Your task to perform on an android device: Open settings Image 0: 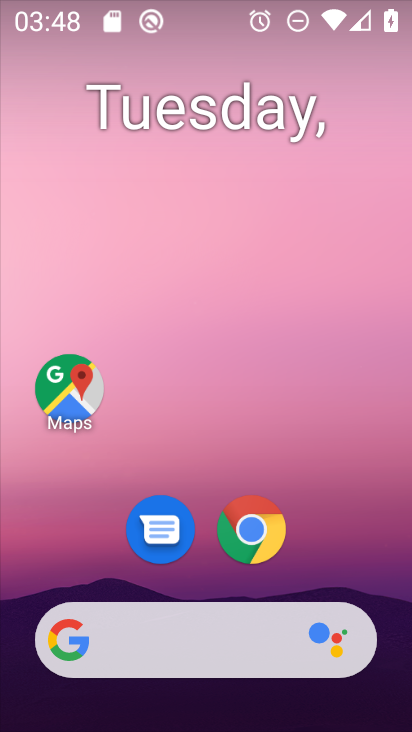
Step 0: drag from (265, 420) to (240, 103)
Your task to perform on an android device: Open settings Image 1: 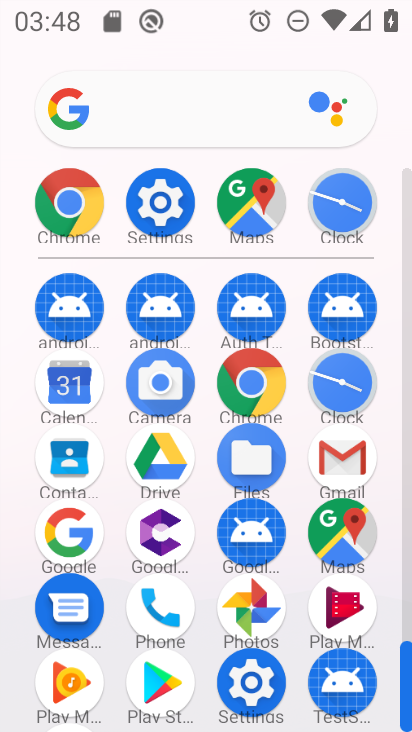
Step 1: click (164, 198)
Your task to perform on an android device: Open settings Image 2: 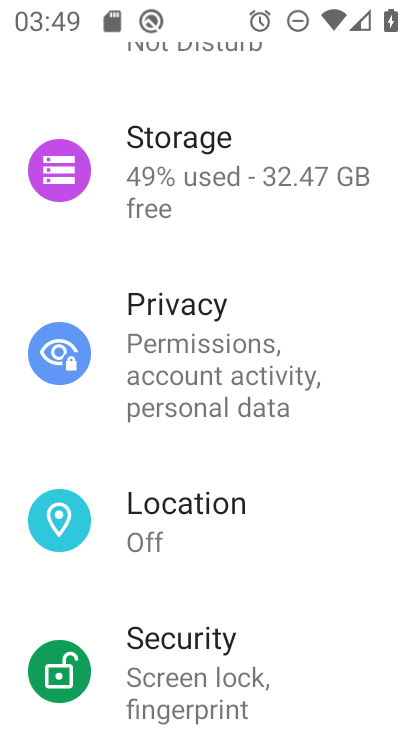
Step 2: task complete